Your task to perform on an android device: create a new album in the google photos Image 0: 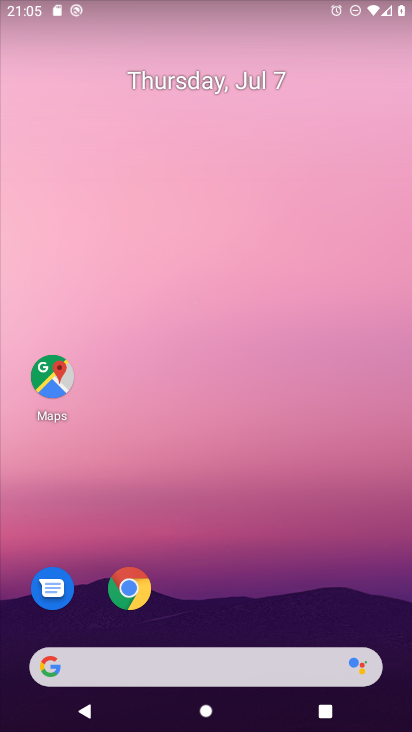
Step 0: drag from (181, 633) to (200, 243)
Your task to perform on an android device: create a new album in the google photos Image 1: 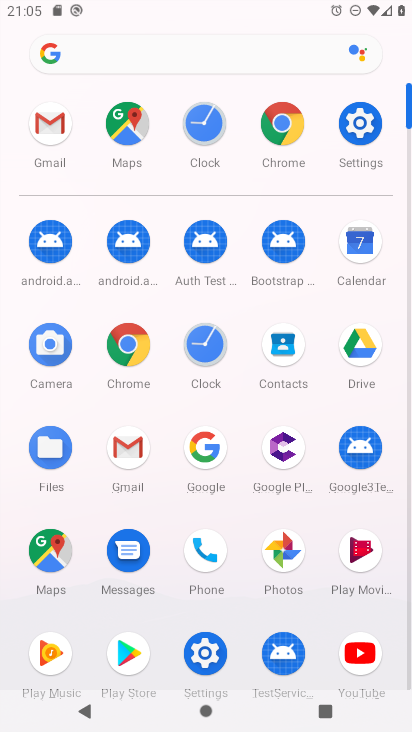
Step 1: click (283, 544)
Your task to perform on an android device: create a new album in the google photos Image 2: 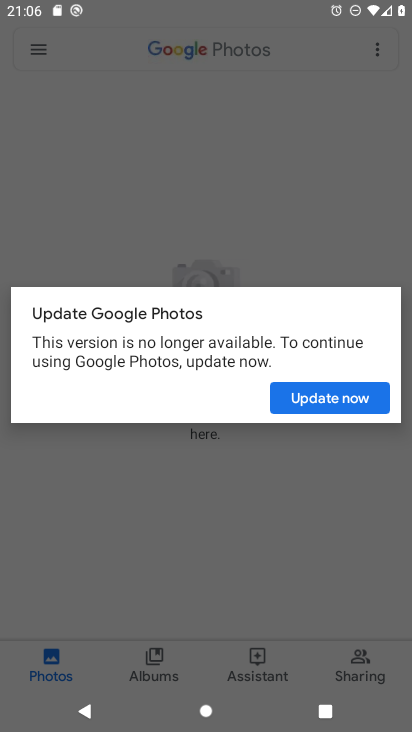
Step 2: task complete